Your task to perform on an android device: open sync settings in chrome Image 0: 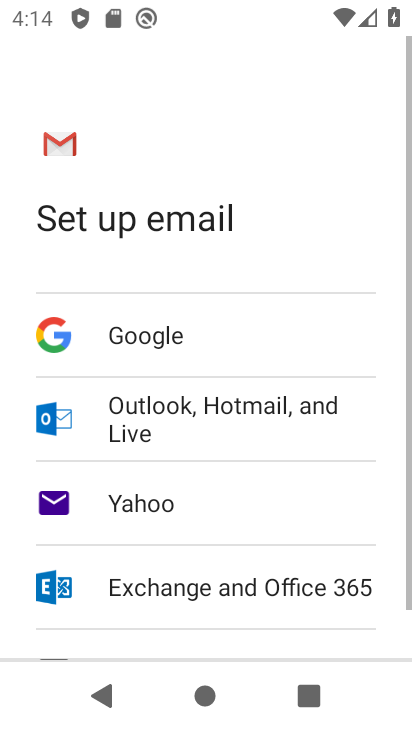
Step 0: press home button
Your task to perform on an android device: open sync settings in chrome Image 1: 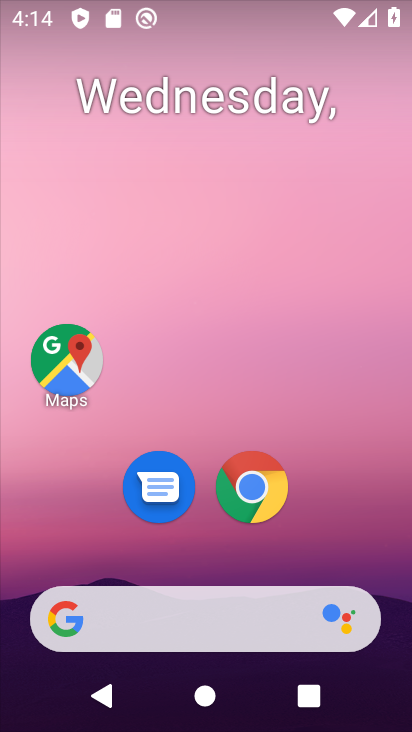
Step 1: click (248, 491)
Your task to perform on an android device: open sync settings in chrome Image 2: 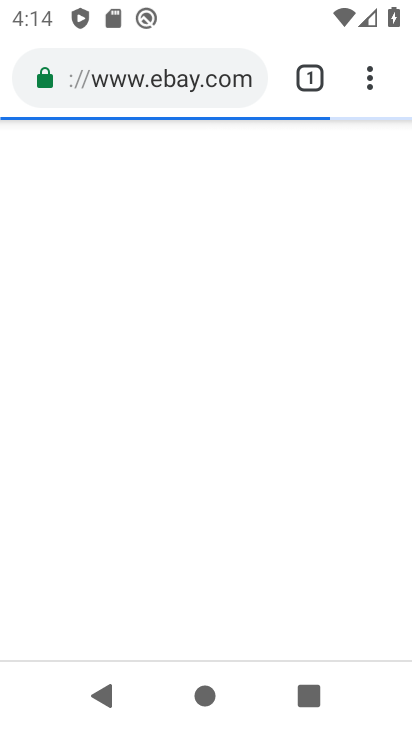
Step 2: drag from (375, 74) to (169, 558)
Your task to perform on an android device: open sync settings in chrome Image 3: 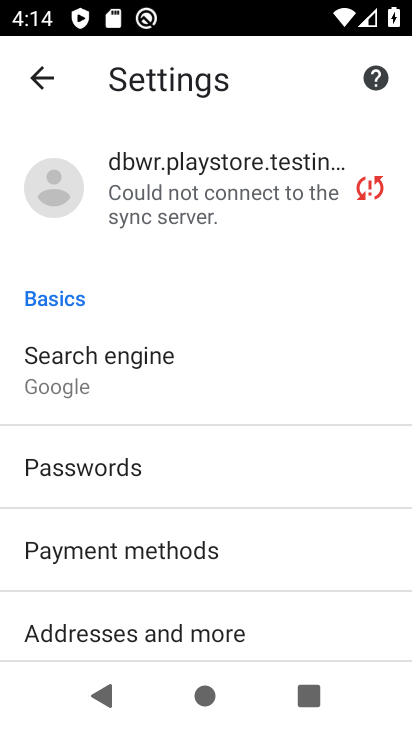
Step 3: click (213, 200)
Your task to perform on an android device: open sync settings in chrome Image 4: 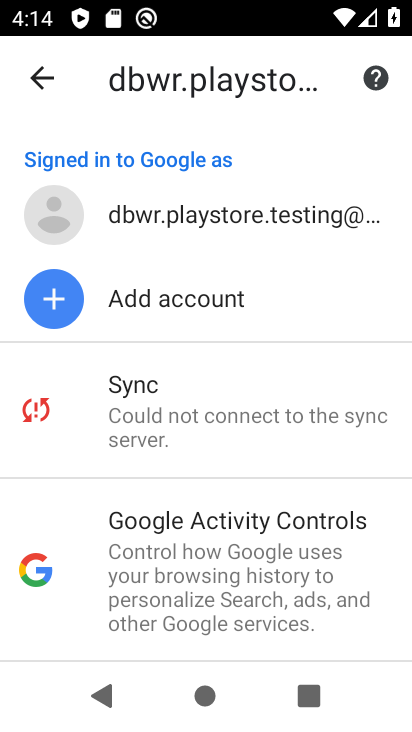
Step 4: click (174, 392)
Your task to perform on an android device: open sync settings in chrome Image 5: 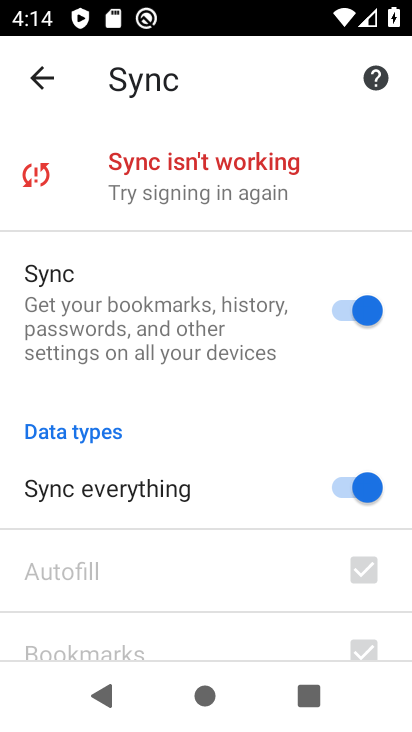
Step 5: task complete